Your task to perform on an android device: Open Google Maps and go to "Timeline" Image 0: 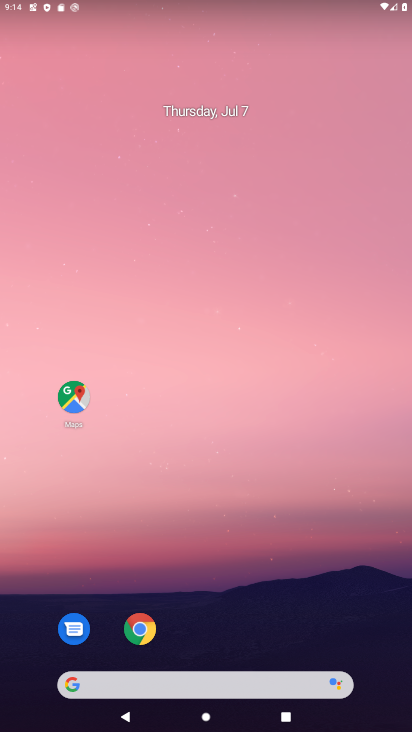
Step 0: click (74, 393)
Your task to perform on an android device: Open Google Maps and go to "Timeline" Image 1: 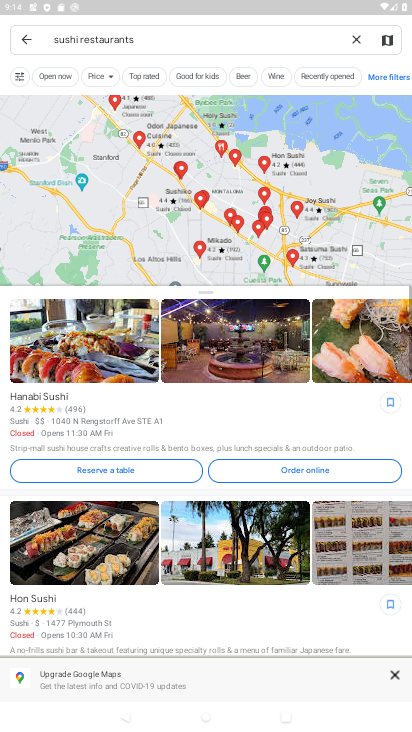
Step 1: click (23, 43)
Your task to perform on an android device: Open Google Maps and go to "Timeline" Image 2: 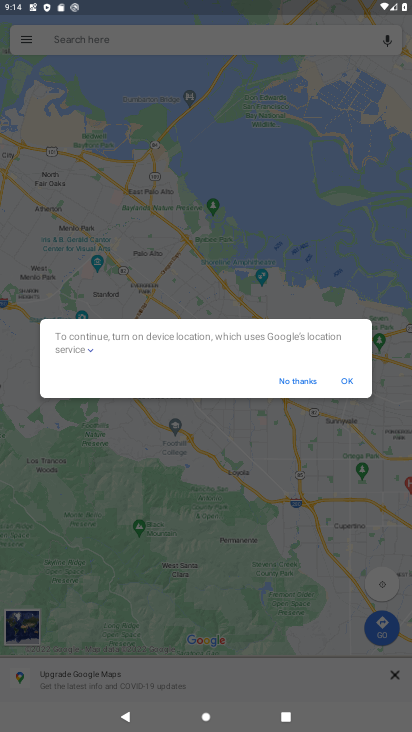
Step 2: click (347, 379)
Your task to perform on an android device: Open Google Maps and go to "Timeline" Image 3: 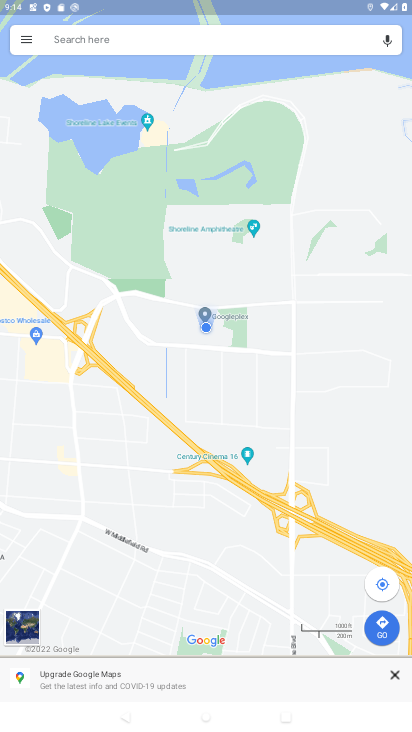
Step 3: click (27, 43)
Your task to perform on an android device: Open Google Maps and go to "Timeline" Image 4: 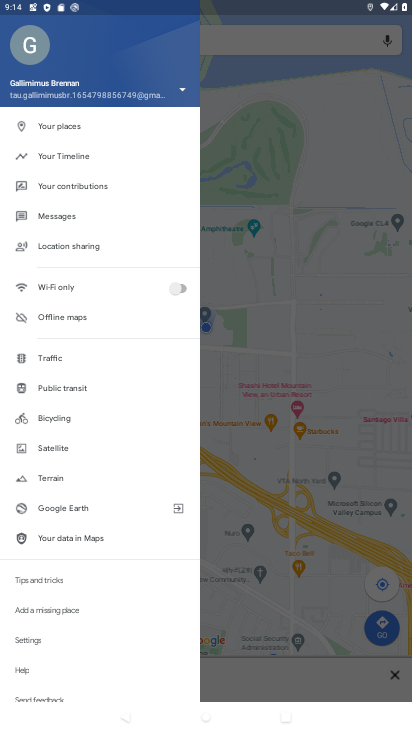
Step 4: click (69, 155)
Your task to perform on an android device: Open Google Maps and go to "Timeline" Image 5: 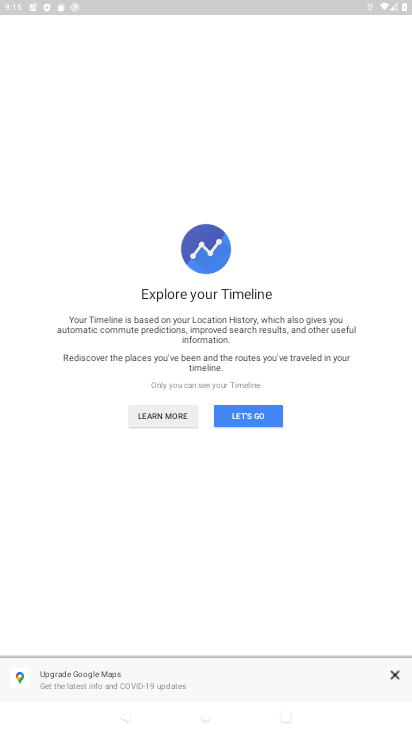
Step 5: click (230, 423)
Your task to perform on an android device: Open Google Maps and go to "Timeline" Image 6: 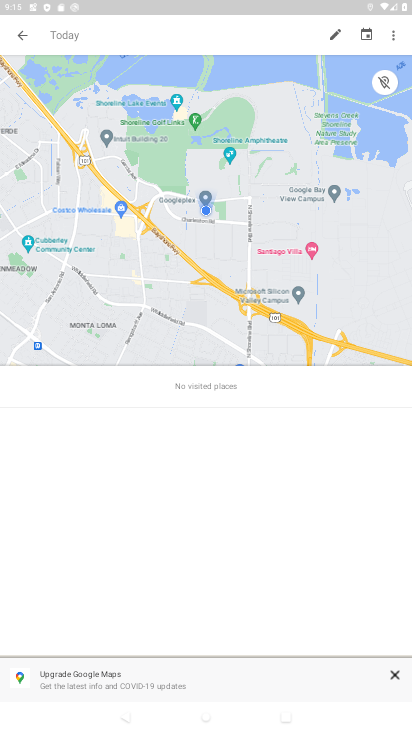
Step 6: task complete